Your task to perform on an android device: turn on showing notifications on the lock screen Image 0: 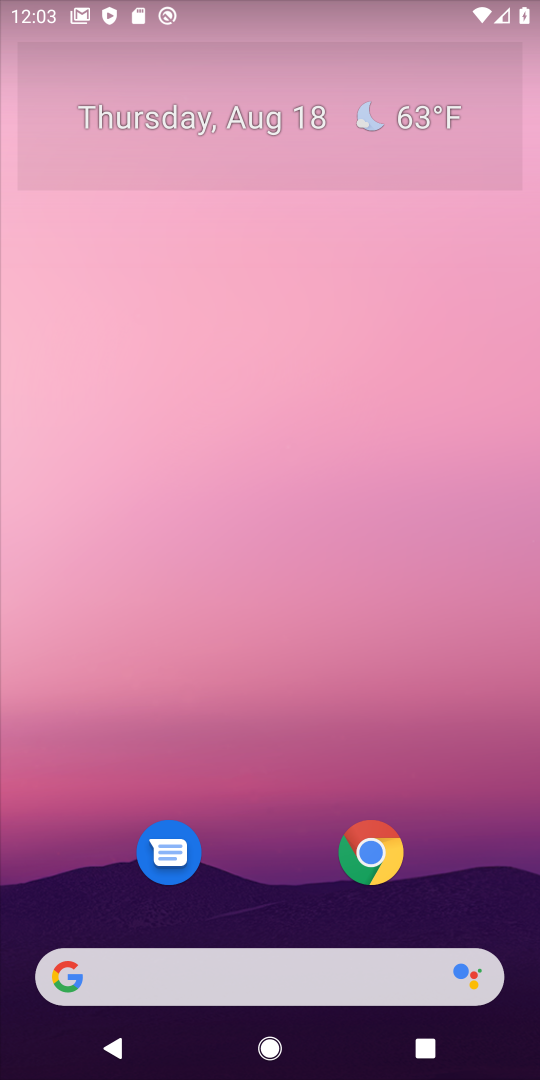
Step 0: task complete